Your task to perform on an android device: Open Youtube and go to "Your channel" Image 0: 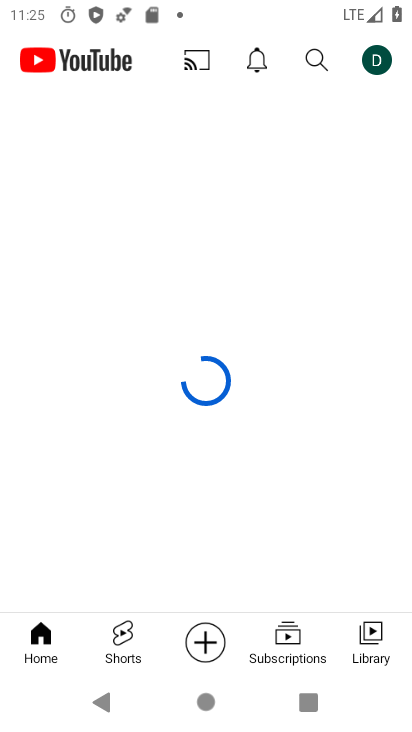
Step 0: press home button
Your task to perform on an android device: Open Youtube and go to "Your channel" Image 1: 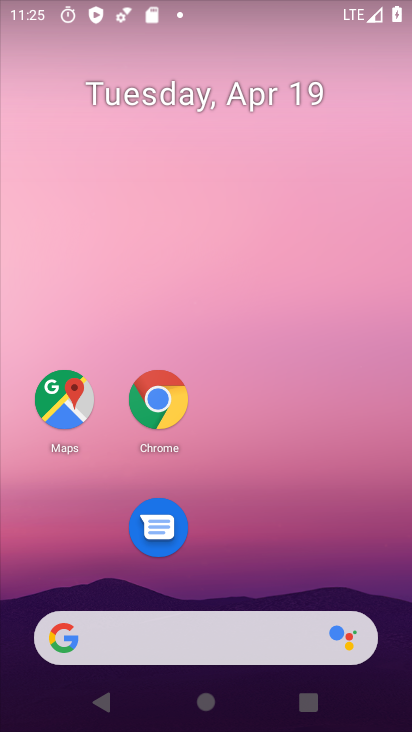
Step 1: drag from (235, 677) to (218, 266)
Your task to perform on an android device: Open Youtube and go to "Your channel" Image 2: 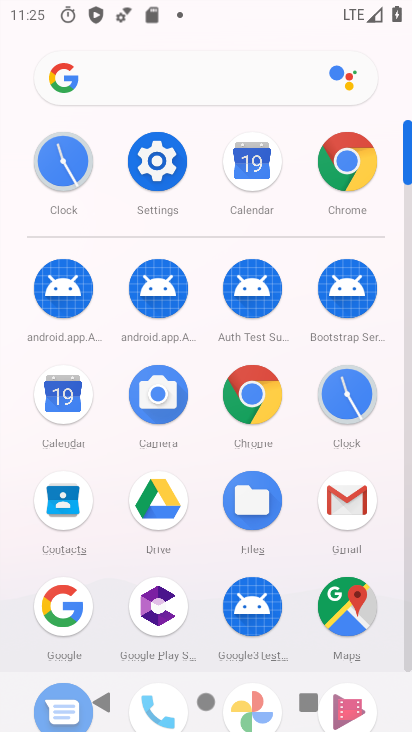
Step 2: drag from (200, 545) to (186, 290)
Your task to perform on an android device: Open Youtube and go to "Your channel" Image 3: 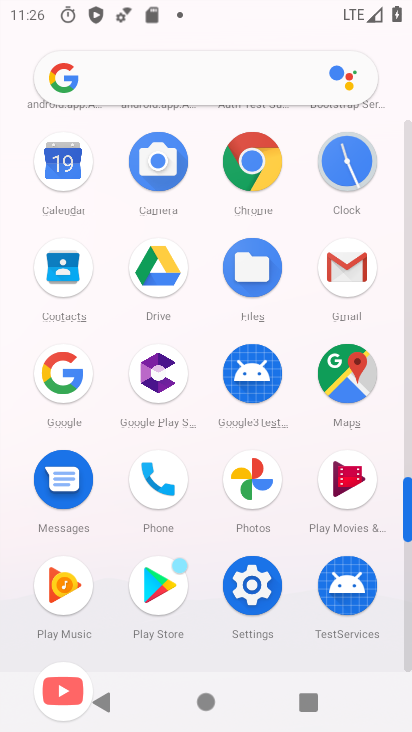
Step 3: click (62, 666)
Your task to perform on an android device: Open Youtube and go to "Your channel" Image 4: 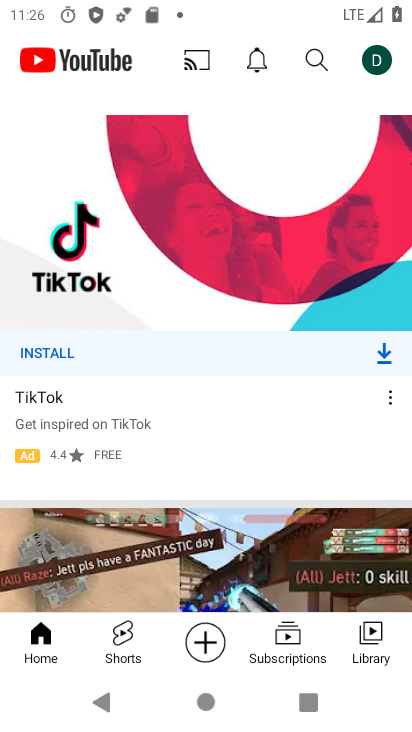
Step 4: click (379, 65)
Your task to perform on an android device: Open Youtube and go to "Your channel" Image 5: 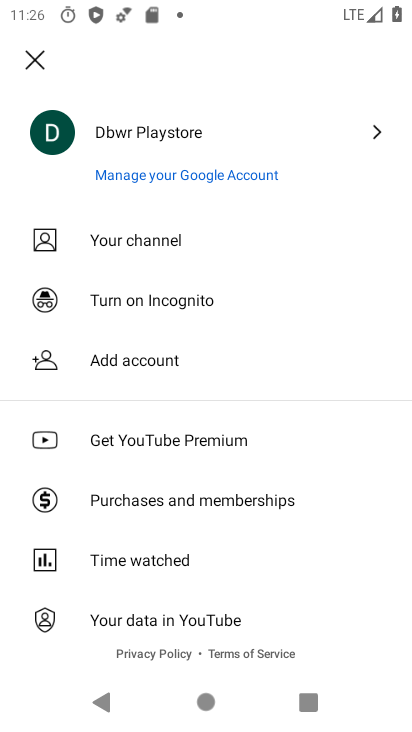
Step 5: click (179, 226)
Your task to perform on an android device: Open Youtube and go to "Your channel" Image 6: 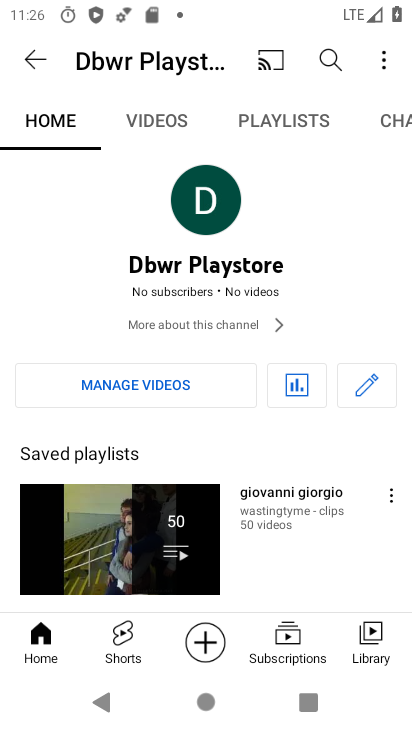
Step 6: task complete